Your task to perform on an android device: star an email in the gmail app Image 0: 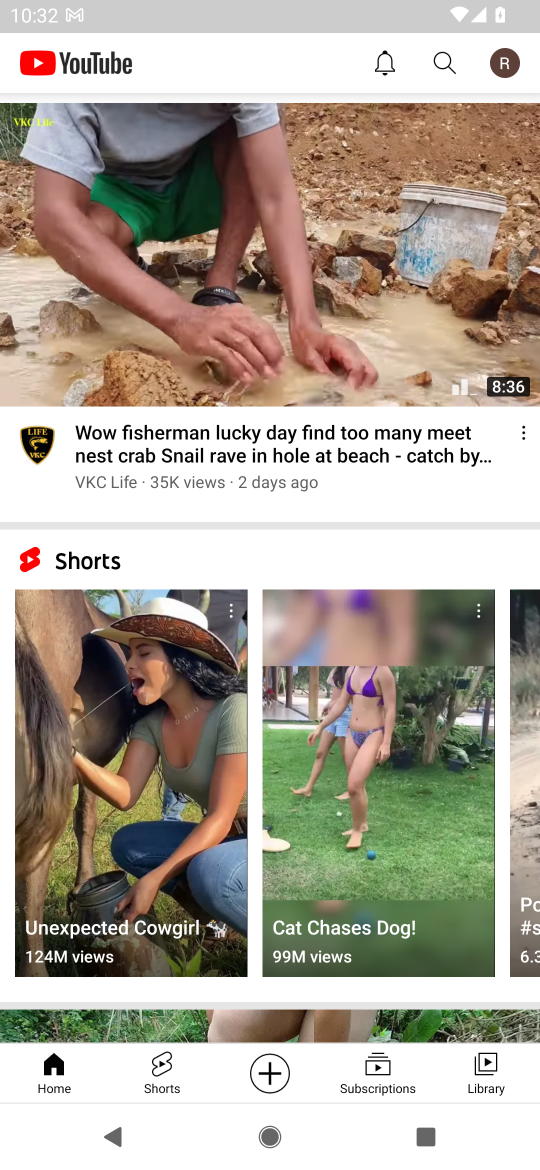
Step 0: press home button
Your task to perform on an android device: star an email in the gmail app Image 1: 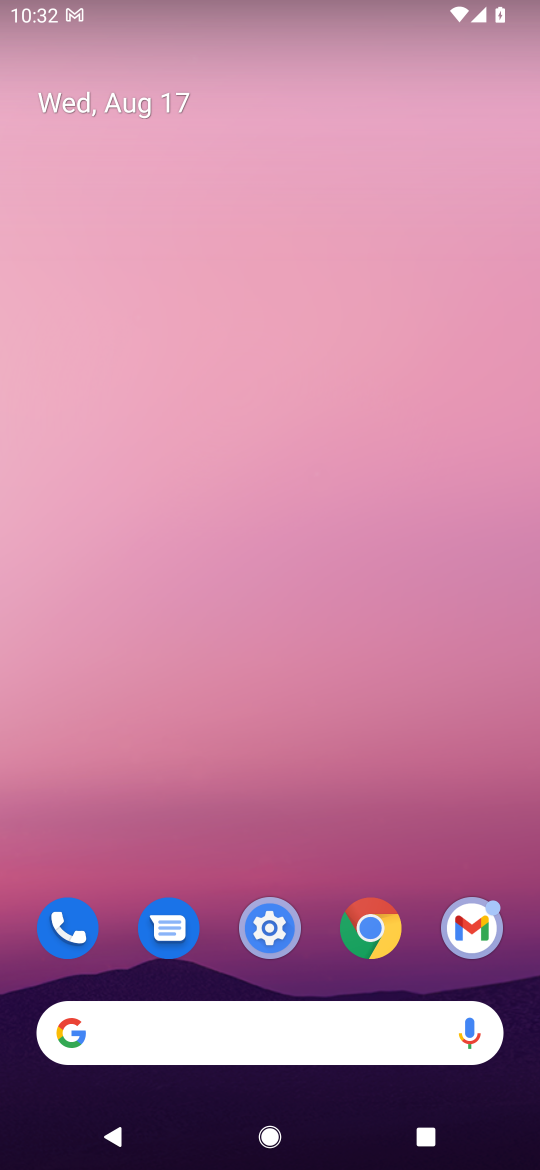
Step 1: drag from (340, 816) to (285, 220)
Your task to perform on an android device: star an email in the gmail app Image 2: 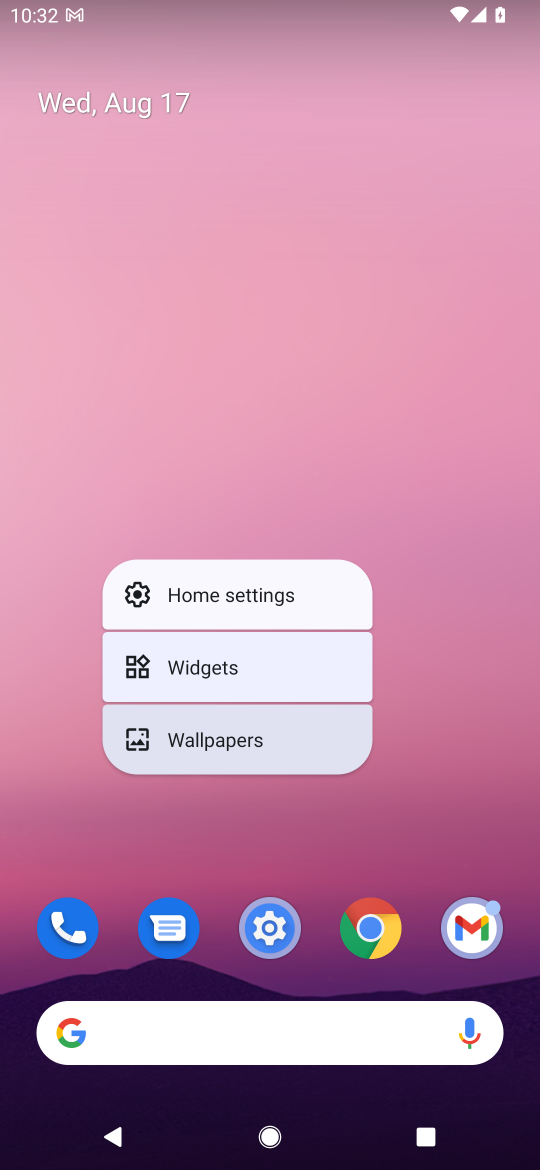
Step 2: click (496, 650)
Your task to perform on an android device: star an email in the gmail app Image 3: 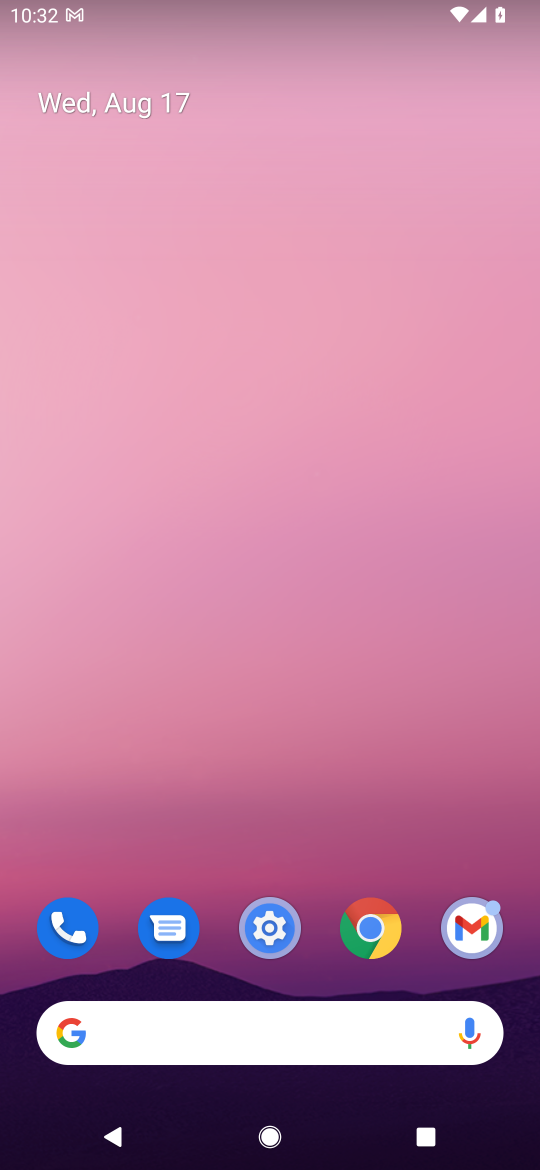
Step 3: drag from (364, 850) to (328, 158)
Your task to perform on an android device: star an email in the gmail app Image 4: 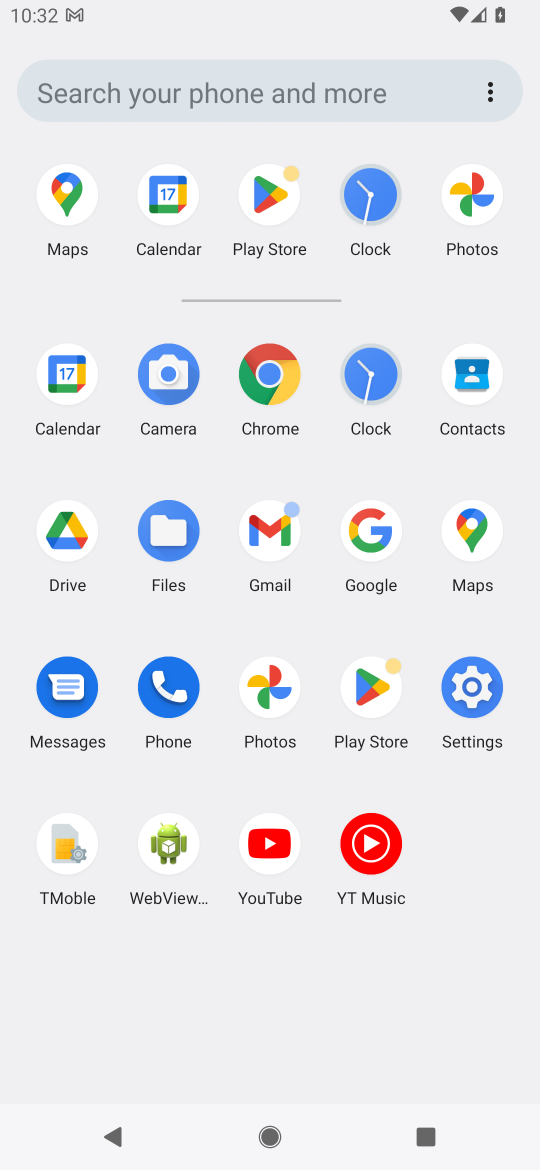
Step 4: click (274, 521)
Your task to perform on an android device: star an email in the gmail app Image 5: 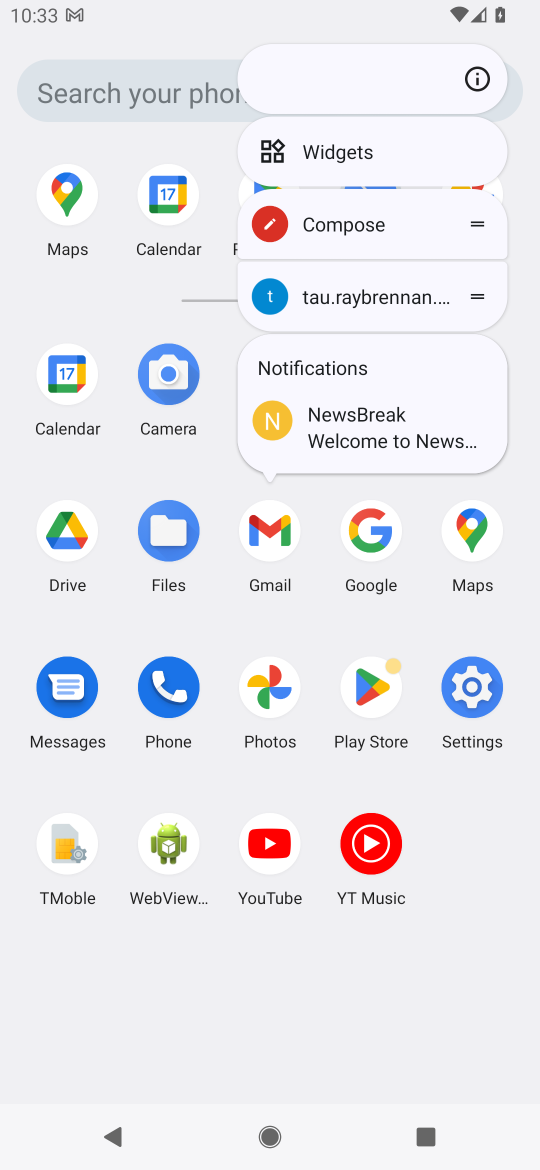
Step 5: click (274, 521)
Your task to perform on an android device: star an email in the gmail app Image 6: 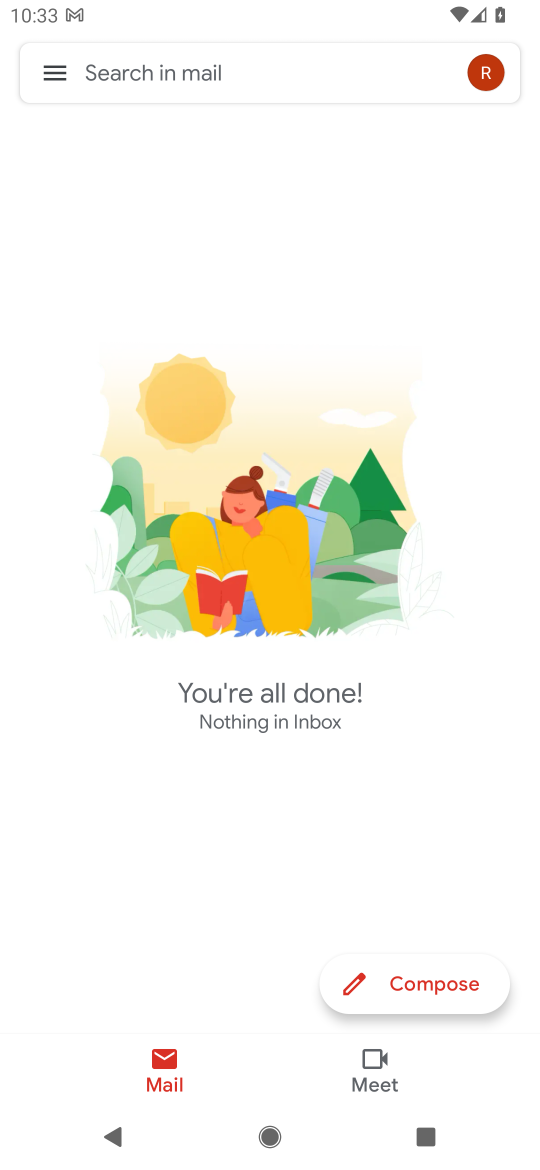
Step 6: click (51, 73)
Your task to perform on an android device: star an email in the gmail app Image 7: 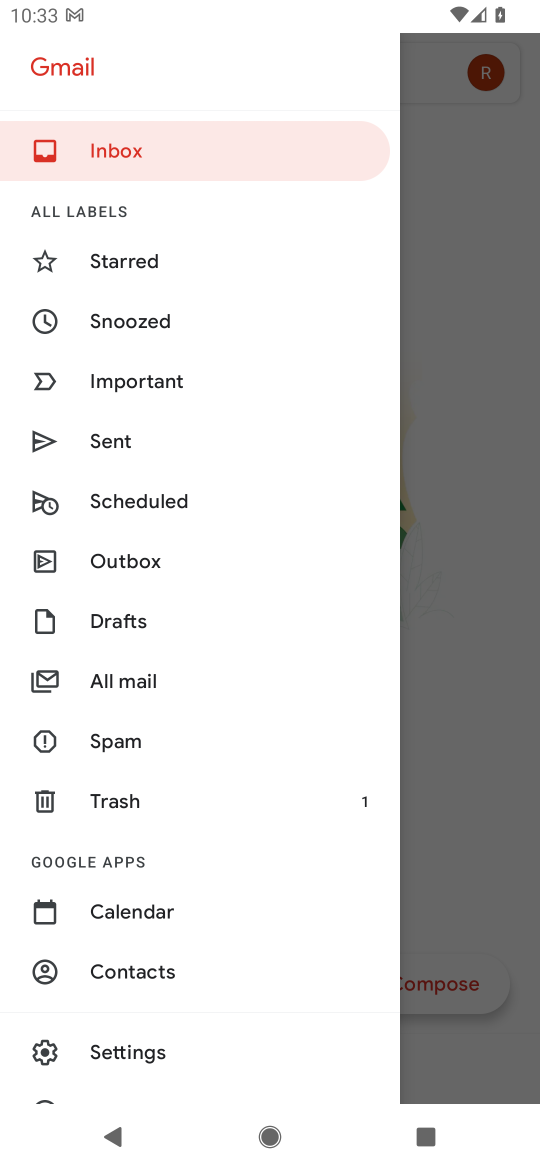
Step 7: click (176, 689)
Your task to perform on an android device: star an email in the gmail app Image 8: 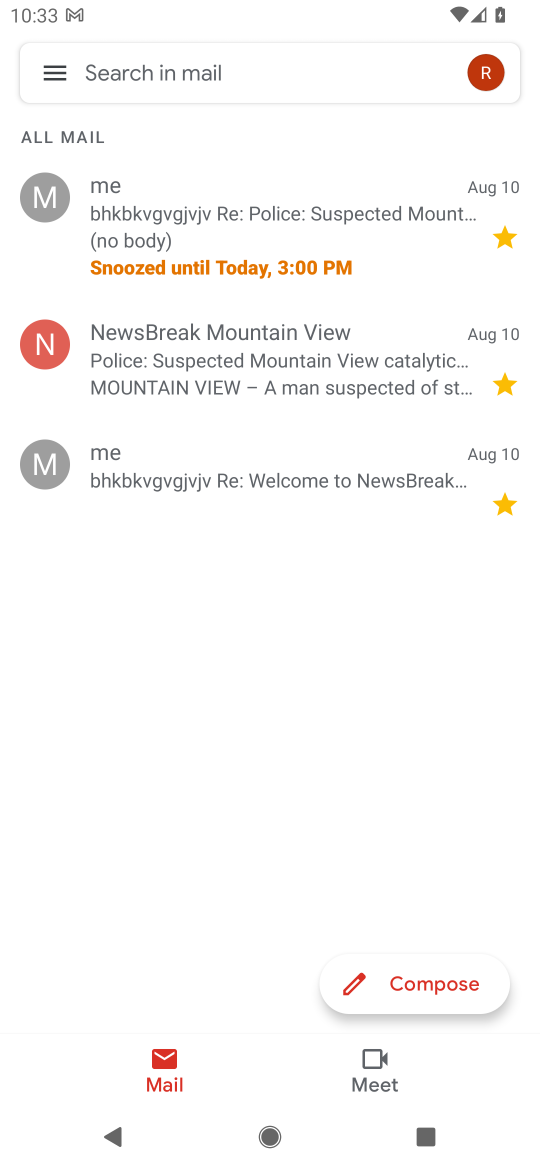
Step 8: task complete